Your task to perform on an android device: read, delete, or share a saved page in the chrome app Image 0: 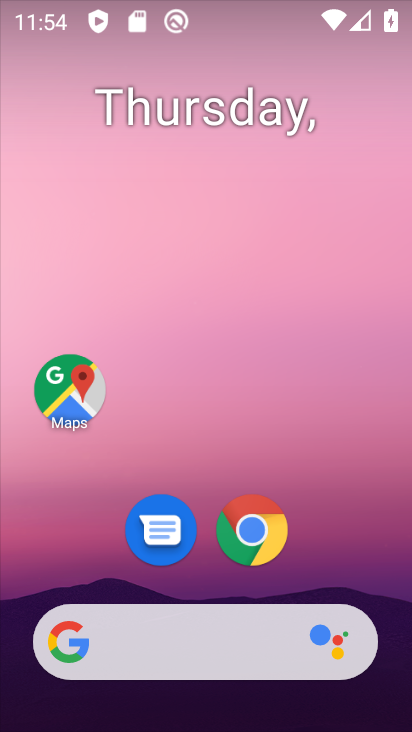
Step 0: click (255, 541)
Your task to perform on an android device: read, delete, or share a saved page in the chrome app Image 1: 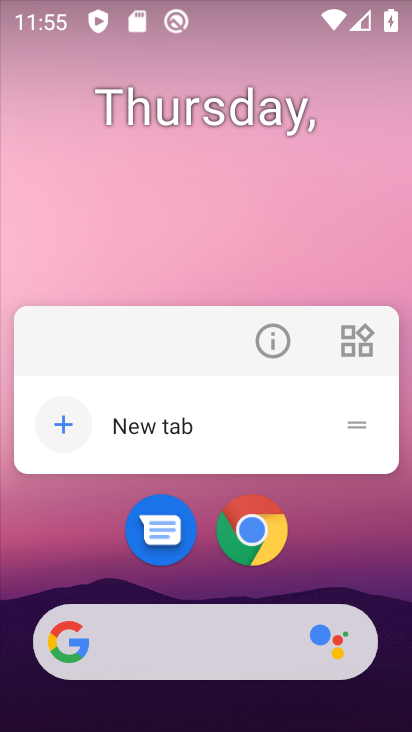
Step 1: click (259, 527)
Your task to perform on an android device: read, delete, or share a saved page in the chrome app Image 2: 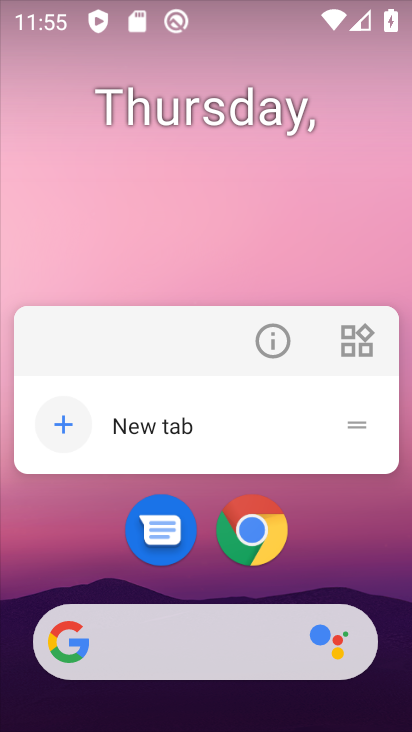
Step 2: click (243, 543)
Your task to perform on an android device: read, delete, or share a saved page in the chrome app Image 3: 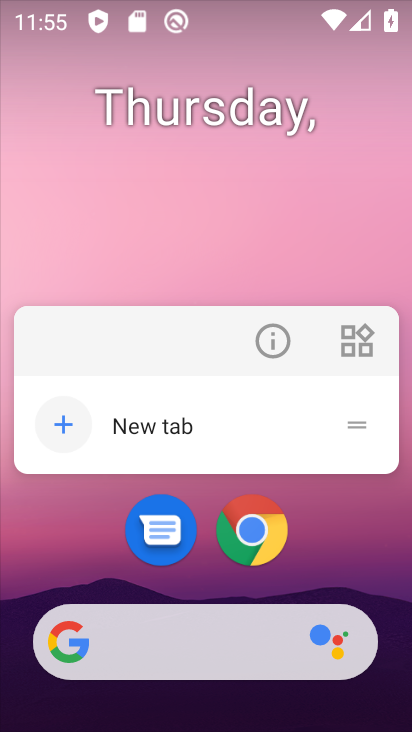
Step 3: click (258, 535)
Your task to perform on an android device: read, delete, or share a saved page in the chrome app Image 4: 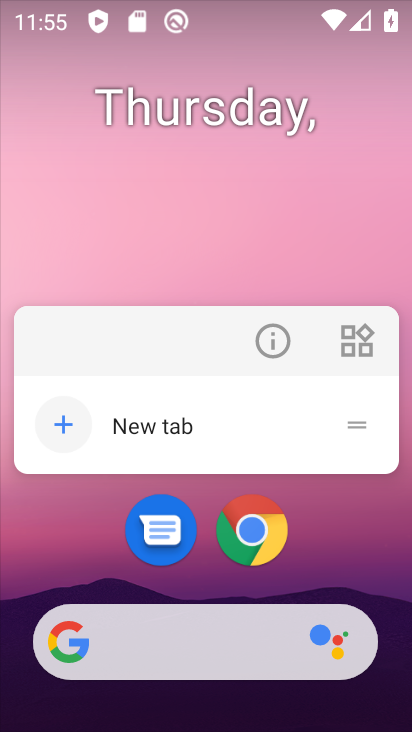
Step 4: click (262, 553)
Your task to perform on an android device: read, delete, or share a saved page in the chrome app Image 5: 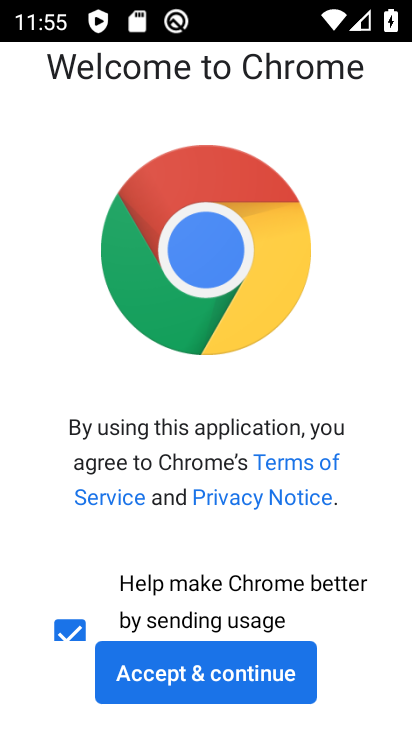
Step 5: click (213, 670)
Your task to perform on an android device: read, delete, or share a saved page in the chrome app Image 6: 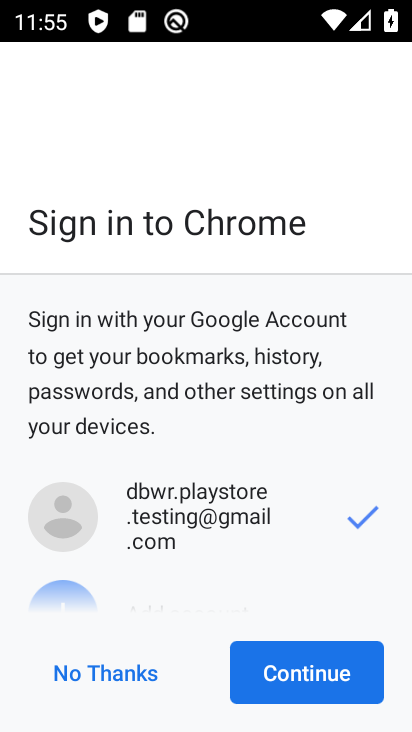
Step 6: click (351, 678)
Your task to perform on an android device: read, delete, or share a saved page in the chrome app Image 7: 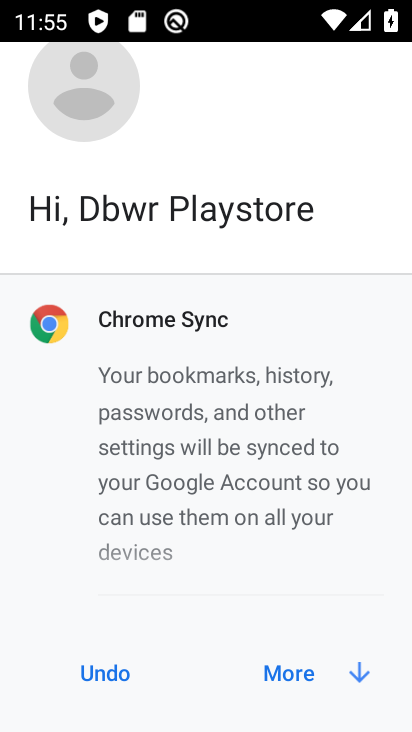
Step 7: click (328, 680)
Your task to perform on an android device: read, delete, or share a saved page in the chrome app Image 8: 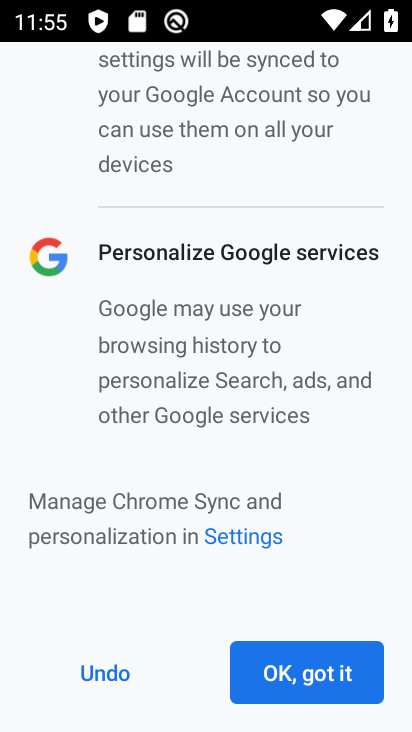
Step 8: click (335, 672)
Your task to perform on an android device: read, delete, or share a saved page in the chrome app Image 9: 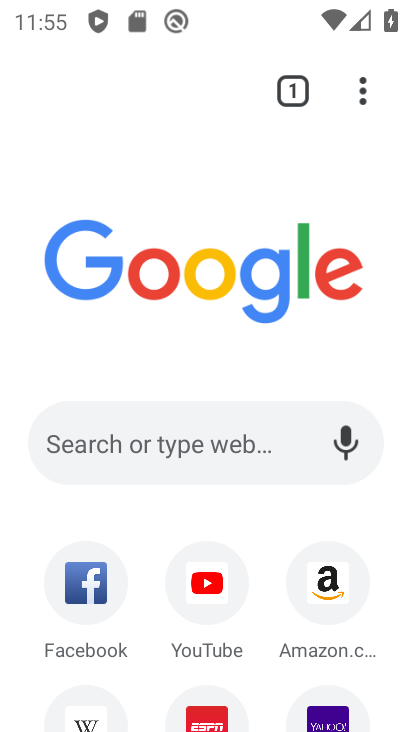
Step 9: task complete